Your task to perform on an android device: Open Google Chrome and open the bookmarks view Image 0: 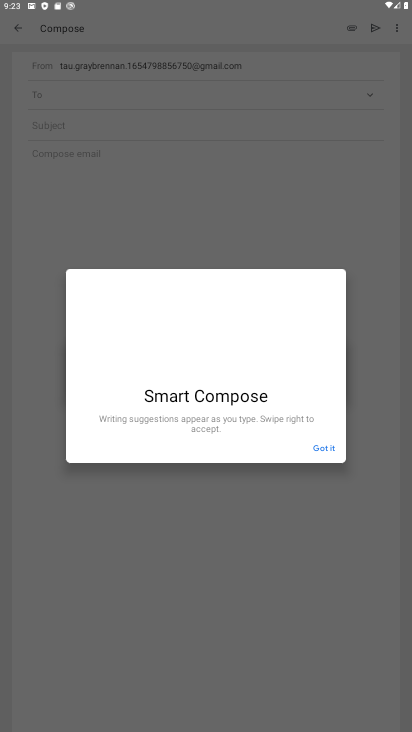
Step 0: press home button
Your task to perform on an android device: Open Google Chrome and open the bookmarks view Image 1: 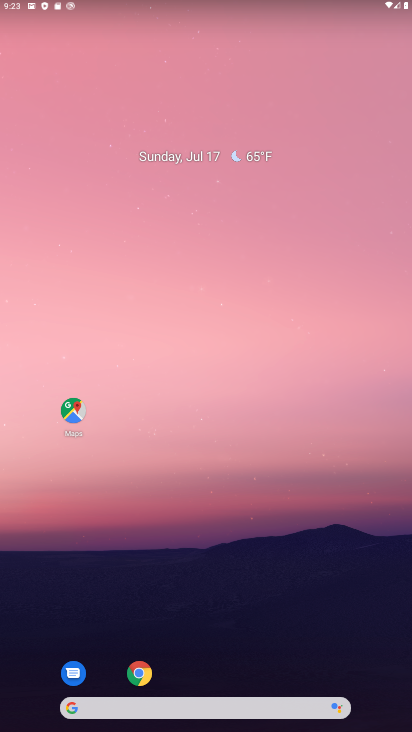
Step 1: click (146, 673)
Your task to perform on an android device: Open Google Chrome and open the bookmarks view Image 2: 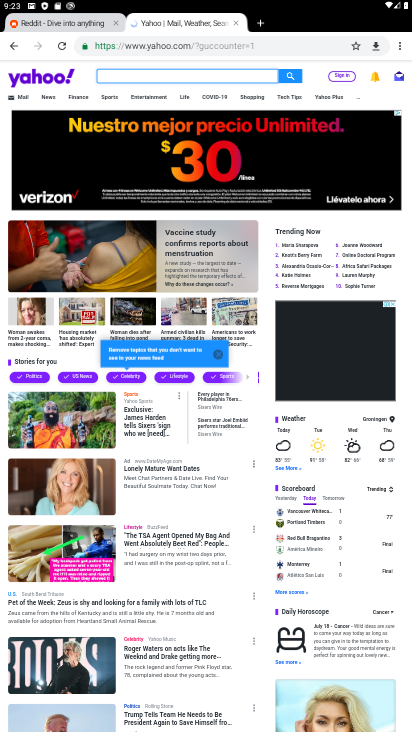
Step 2: click (398, 45)
Your task to perform on an android device: Open Google Chrome and open the bookmarks view Image 3: 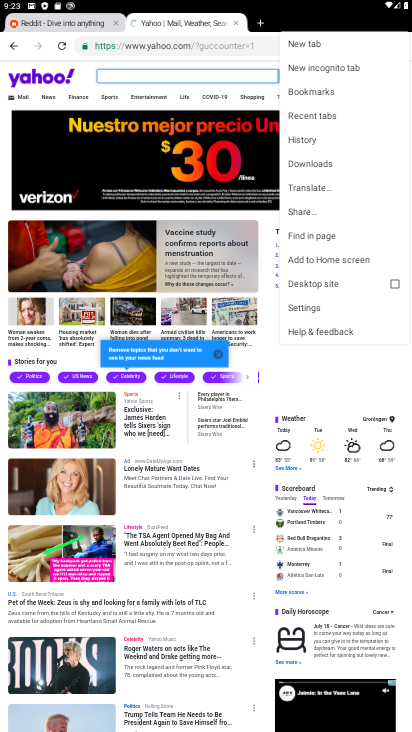
Step 3: click (325, 89)
Your task to perform on an android device: Open Google Chrome and open the bookmarks view Image 4: 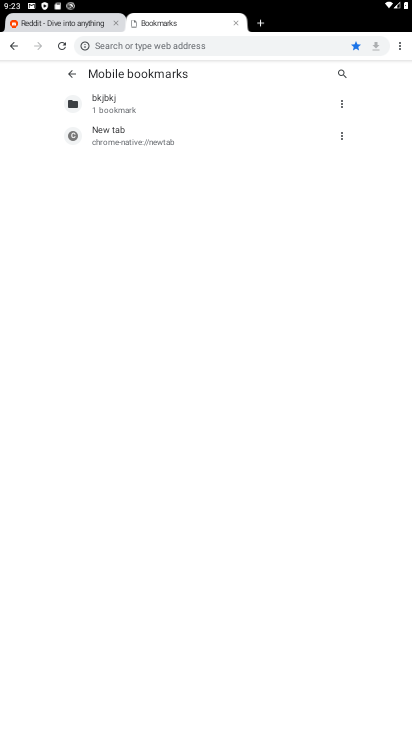
Step 4: click (345, 105)
Your task to perform on an android device: Open Google Chrome and open the bookmarks view Image 5: 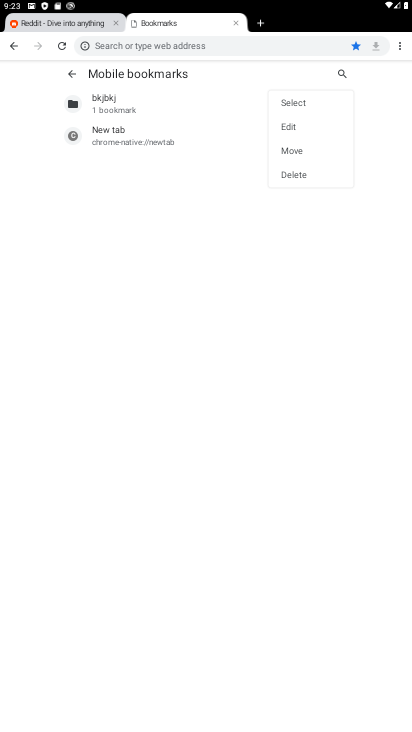
Step 5: click (300, 121)
Your task to perform on an android device: Open Google Chrome and open the bookmarks view Image 6: 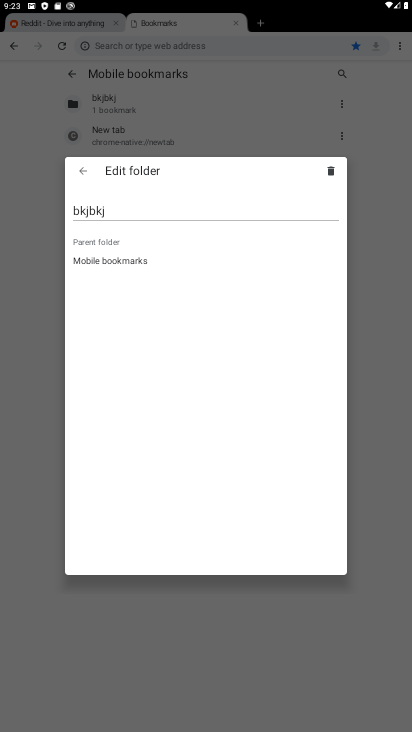
Step 6: task complete